Your task to perform on an android device: What's on my calendar today? Image 0: 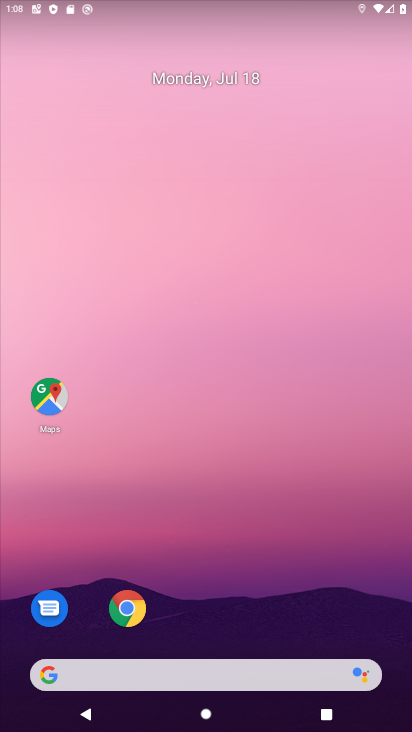
Step 0: drag from (395, 622) to (336, 132)
Your task to perform on an android device: What's on my calendar today? Image 1: 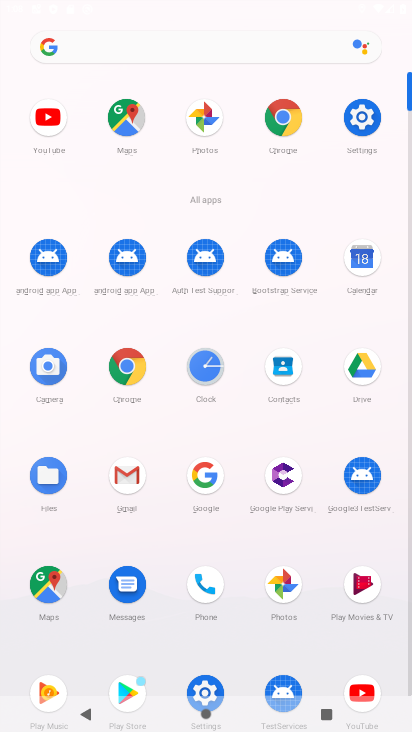
Step 1: click (371, 256)
Your task to perform on an android device: What's on my calendar today? Image 2: 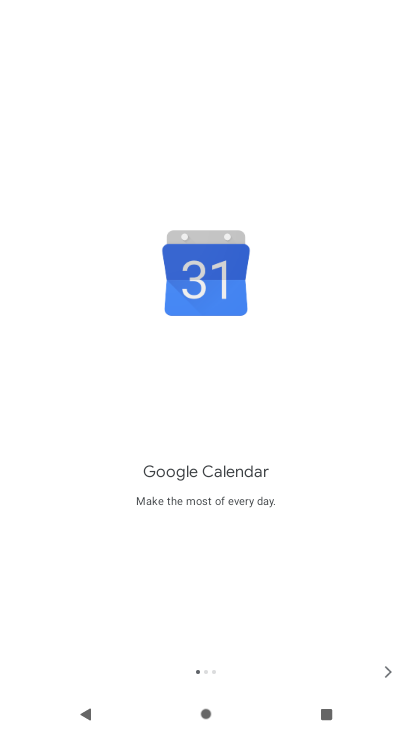
Step 2: click (389, 670)
Your task to perform on an android device: What's on my calendar today? Image 3: 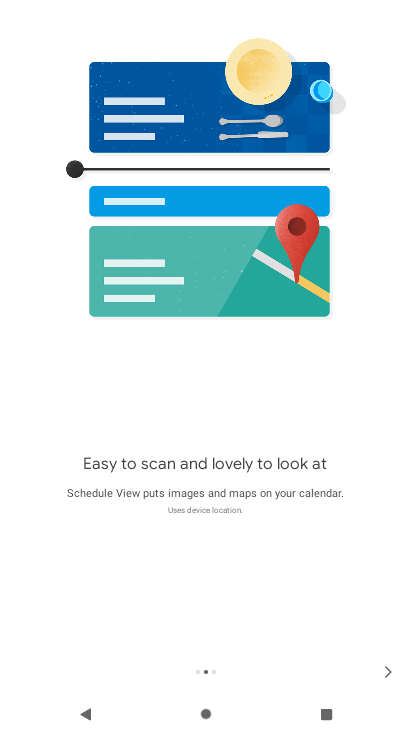
Step 3: click (389, 672)
Your task to perform on an android device: What's on my calendar today? Image 4: 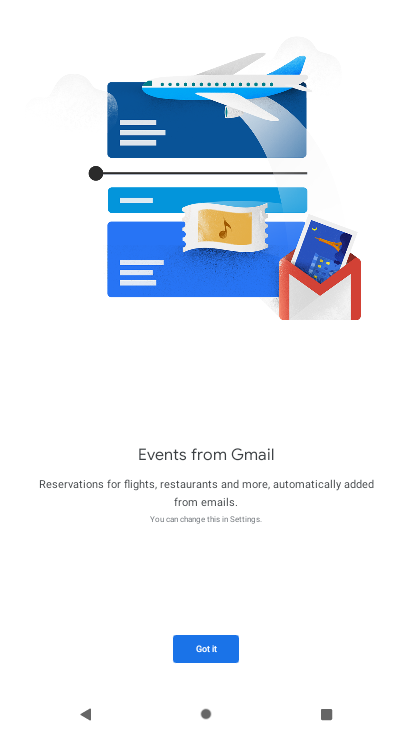
Step 4: click (214, 641)
Your task to perform on an android device: What's on my calendar today? Image 5: 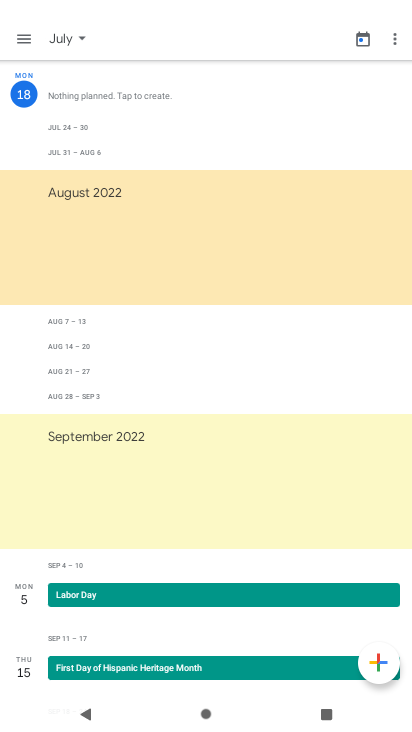
Step 5: click (24, 44)
Your task to perform on an android device: What's on my calendar today? Image 6: 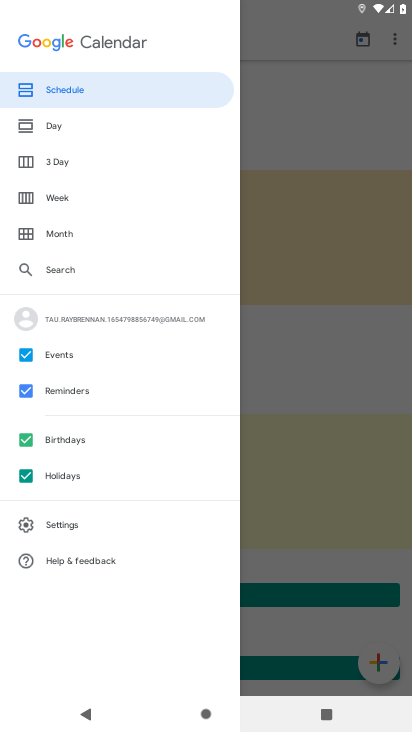
Step 6: click (60, 118)
Your task to perform on an android device: What's on my calendar today? Image 7: 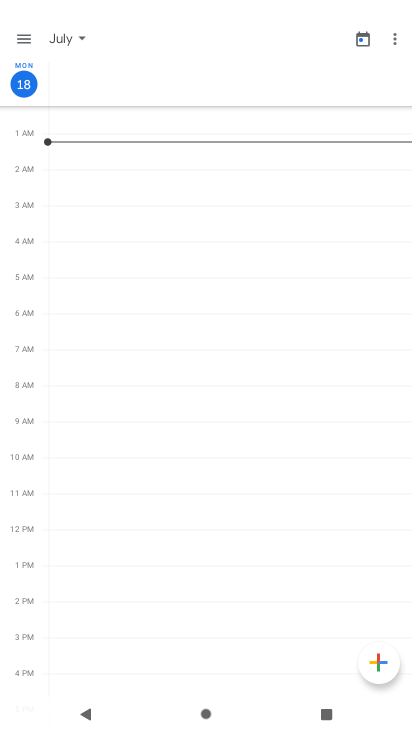
Step 7: task complete